Your task to perform on an android device: read, delete, or share a saved page in the chrome app Image 0: 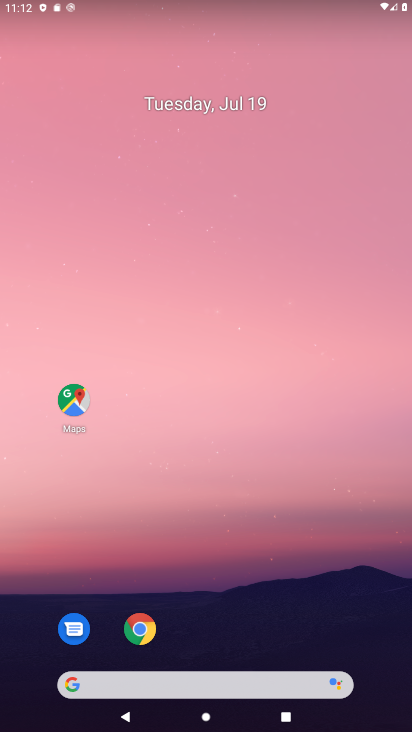
Step 0: drag from (324, 509) to (322, 160)
Your task to perform on an android device: read, delete, or share a saved page in the chrome app Image 1: 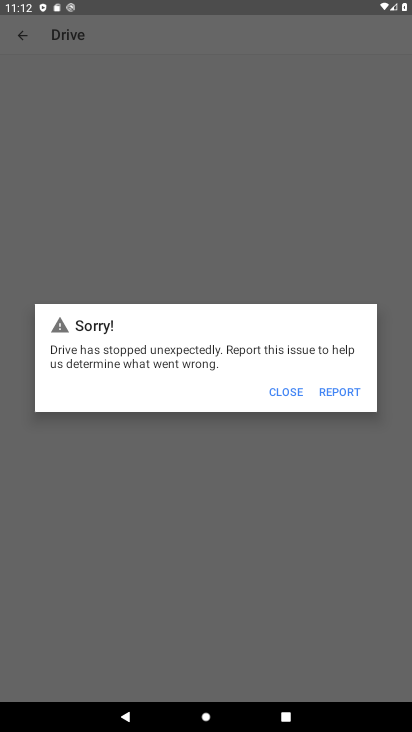
Step 1: press home button
Your task to perform on an android device: read, delete, or share a saved page in the chrome app Image 2: 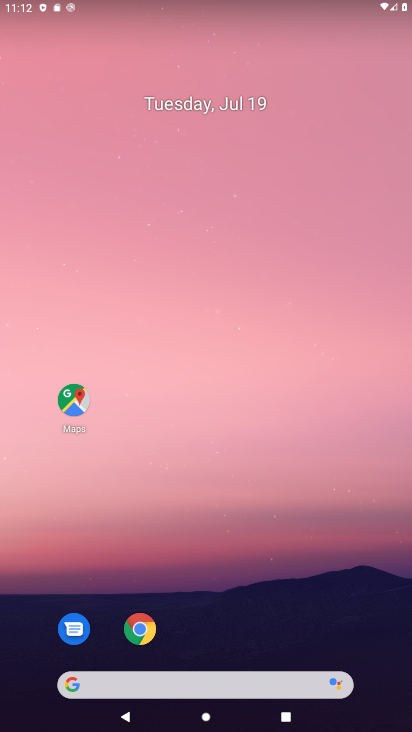
Step 2: drag from (335, 600) to (354, 180)
Your task to perform on an android device: read, delete, or share a saved page in the chrome app Image 3: 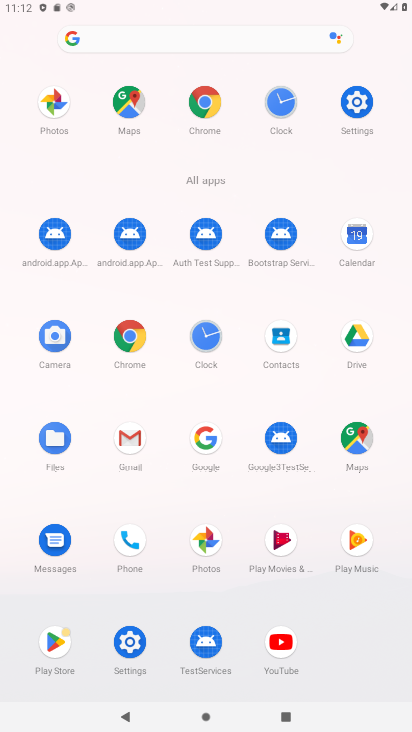
Step 3: click (141, 341)
Your task to perform on an android device: read, delete, or share a saved page in the chrome app Image 4: 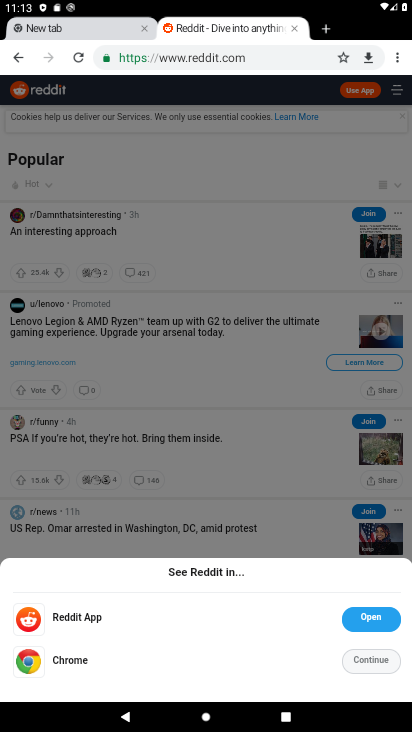
Step 4: click (399, 58)
Your task to perform on an android device: read, delete, or share a saved page in the chrome app Image 5: 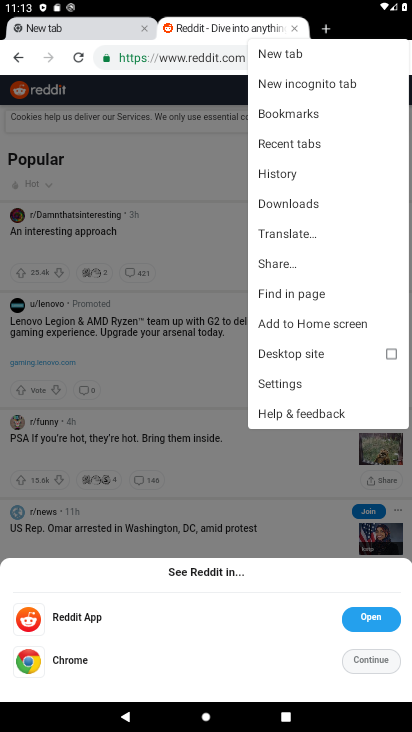
Step 5: click (304, 200)
Your task to perform on an android device: read, delete, or share a saved page in the chrome app Image 6: 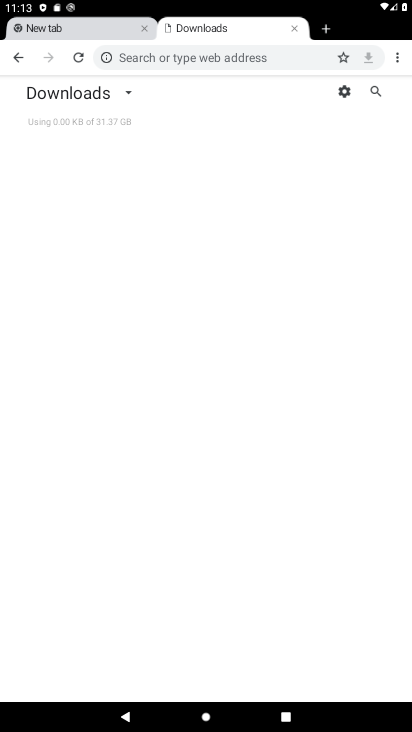
Step 6: click (126, 95)
Your task to perform on an android device: read, delete, or share a saved page in the chrome app Image 7: 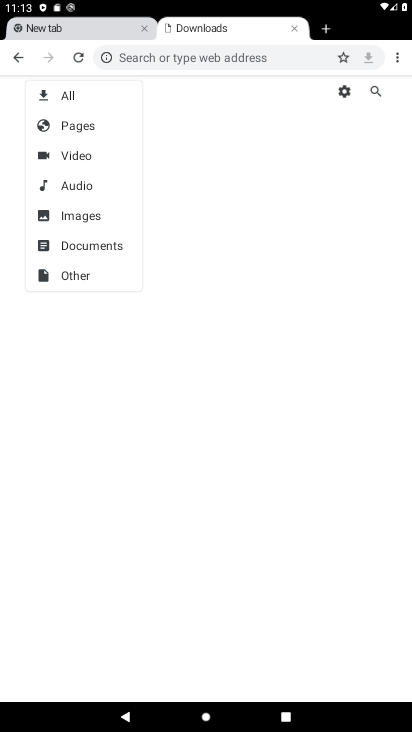
Step 7: click (95, 125)
Your task to perform on an android device: read, delete, or share a saved page in the chrome app Image 8: 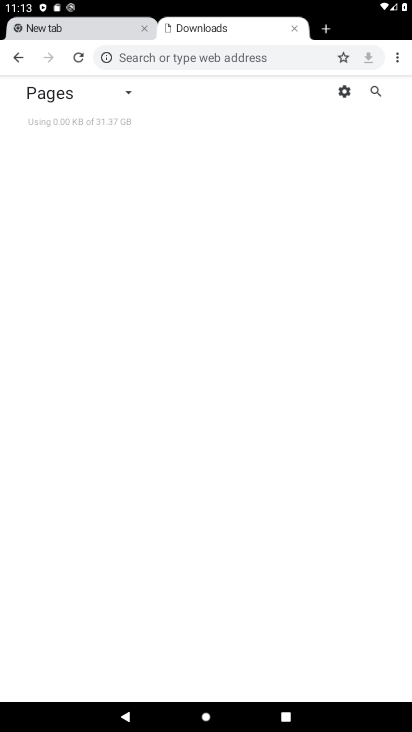
Step 8: task complete